Your task to perform on an android device: toggle data saver in the chrome app Image 0: 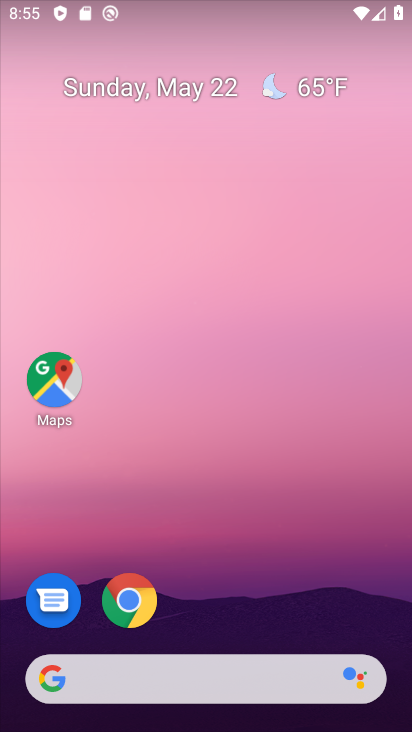
Step 0: click (134, 604)
Your task to perform on an android device: toggle data saver in the chrome app Image 1: 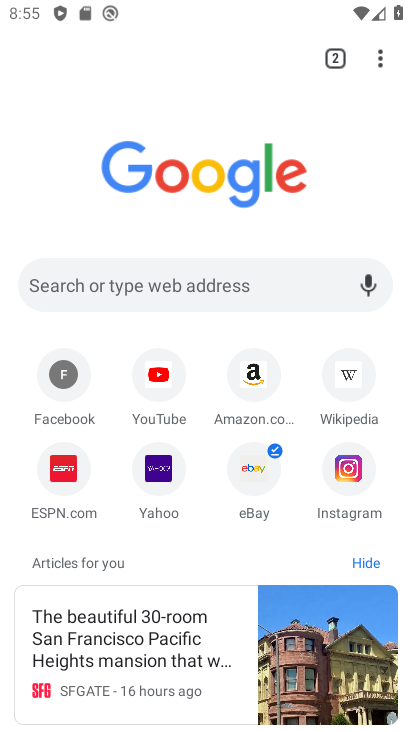
Step 1: click (382, 54)
Your task to perform on an android device: toggle data saver in the chrome app Image 2: 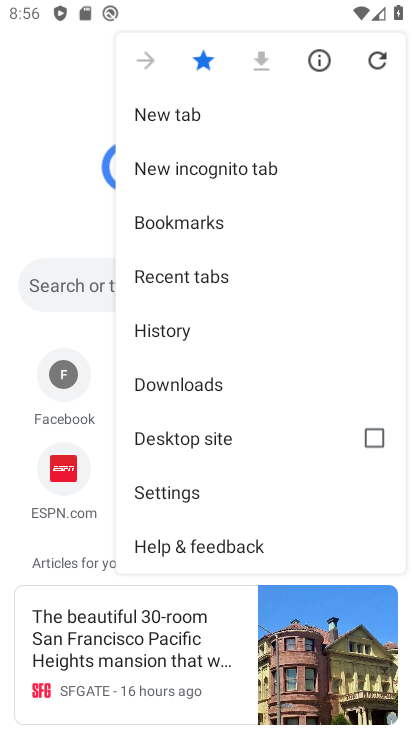
Step 2: click (156, 492)
Your task to perform on an android device: toggle data saver in the chrome app Image 3: 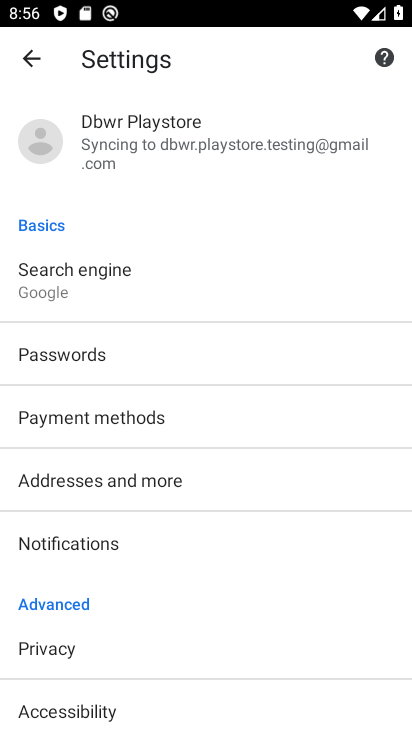
Step 3: drag from (143, 695) to (128, 408)
Your task to perform on an android device: toggle data saver in the chrome app Image 4: 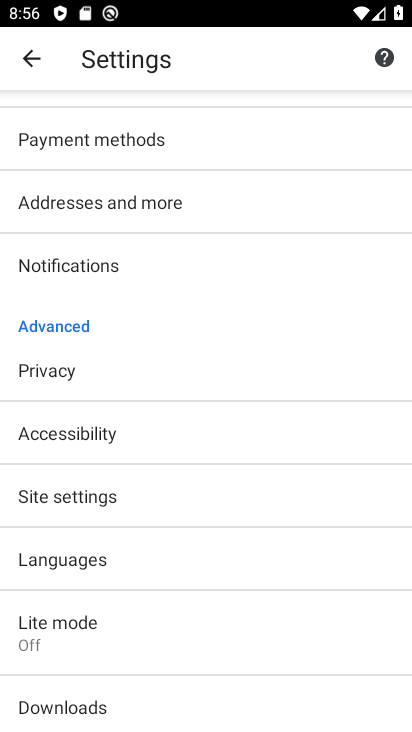
Step 4: drag from (101, 688) to (100, 411)
Your task to perform on an android device: toggle data saver in the chrome app Image 5: 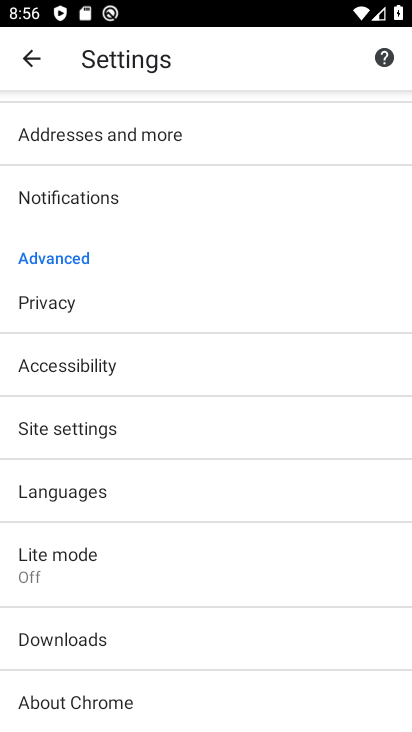
Step 5: click (63, 577)
Your task to perform on an android device: toggle data saver in the chrome app Image 6: 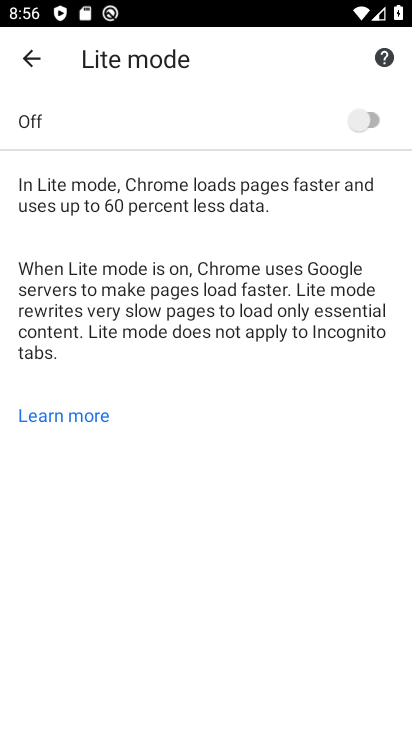
Step 6: click (368, 119)
Your task to perform on an android device: toggle data saver in the chrome app Image 7: 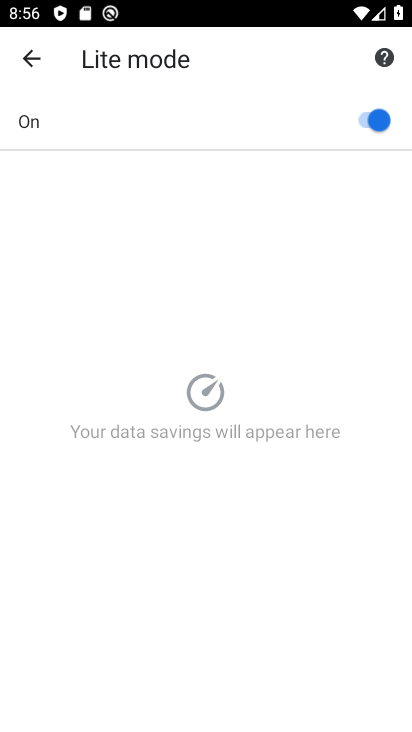
Step 7: task complete